Your task to perform on an android device: empty trash in google photos Image 0: 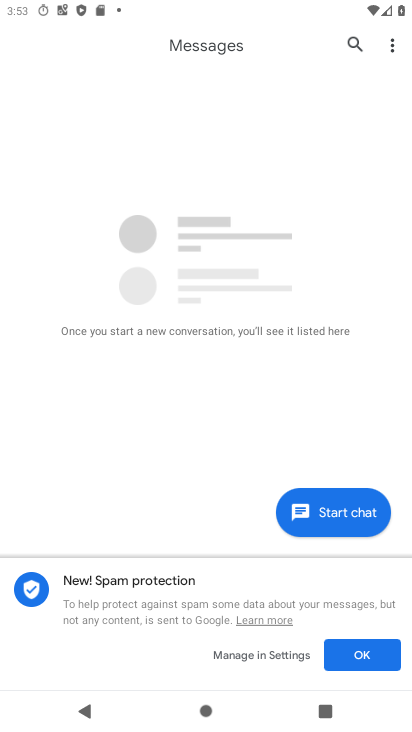
Step 0: press home button
Your task to perform on an android device: empty trash in google photos Image 1: 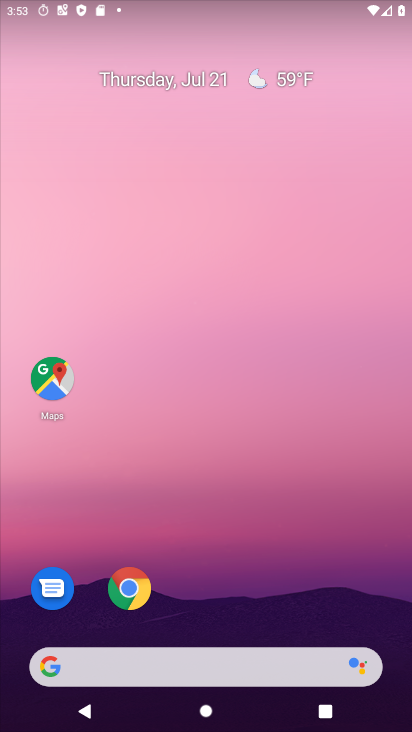
Step 1: drag from (252, 592) to (247, 162)
Your task to perform on an android device: empty trash in google photos Image 2: 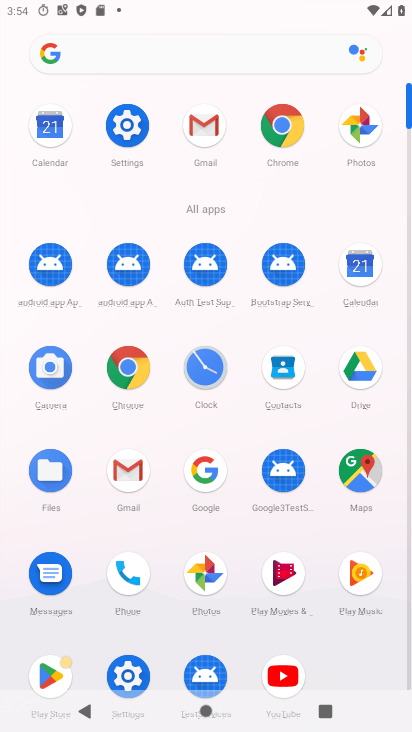
Step 2: click (202, 575)
Your task to perform on an android device: empty trash in google photos Image 3: 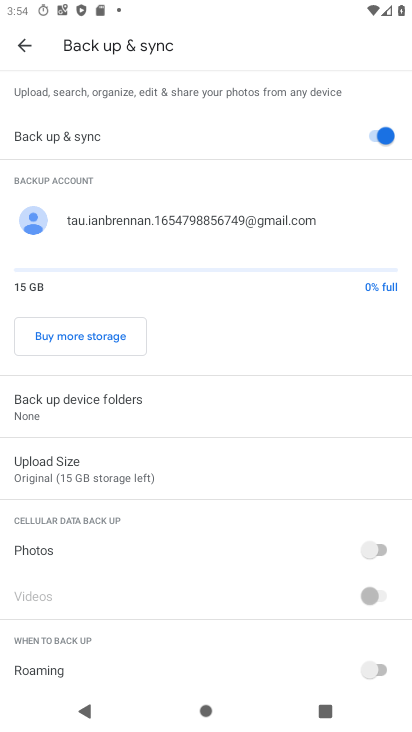
Step 3: click (19, 33)
Your task to perform on an android device: empty trash in google photos Image 4: 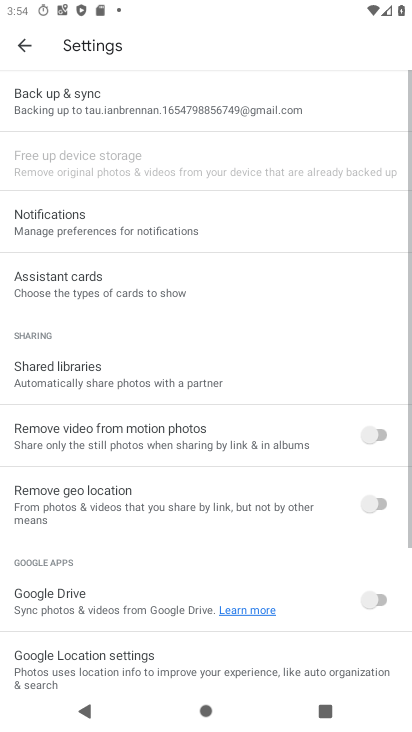
Step 4: click (21, 34)
Your task to perform on an android device: empty trash in google photos Image 5: 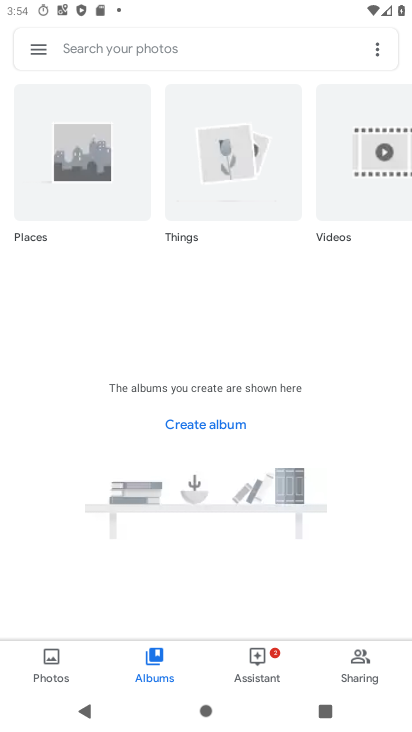
Step 5: click (31, 42)
Your task to perform on an android device: empty trash in google photos Image 6: 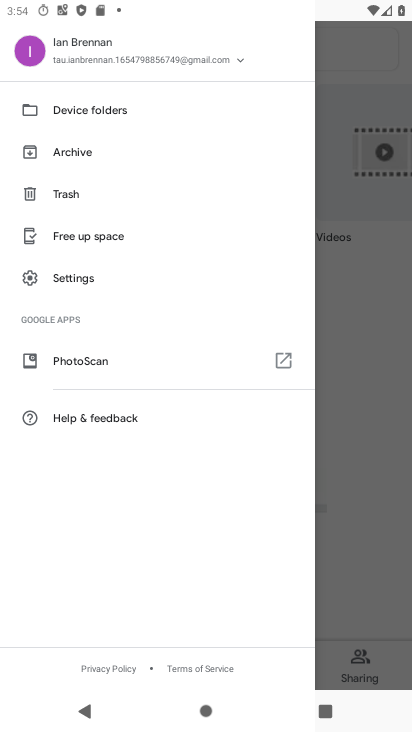
Step 6: click (76, 193)
Your task to perform on an android device: empty trash in google photos Image 7: 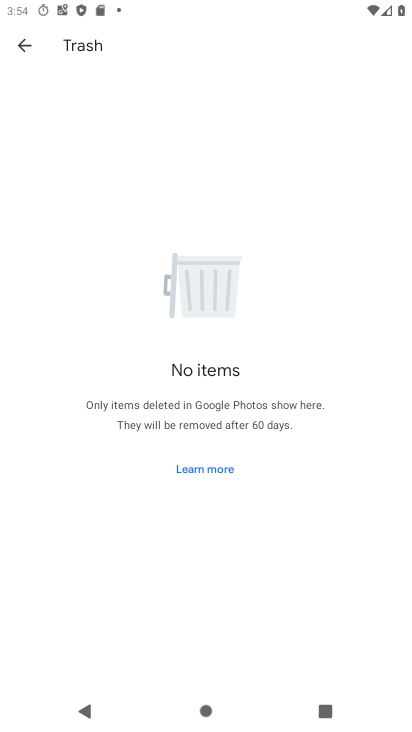
Step 7: task complete